Your task to perform on an android device: Search for "energizer triple a" on bestbuy.com, select the first entry, add it to the cart, then select checkout. Image 0: 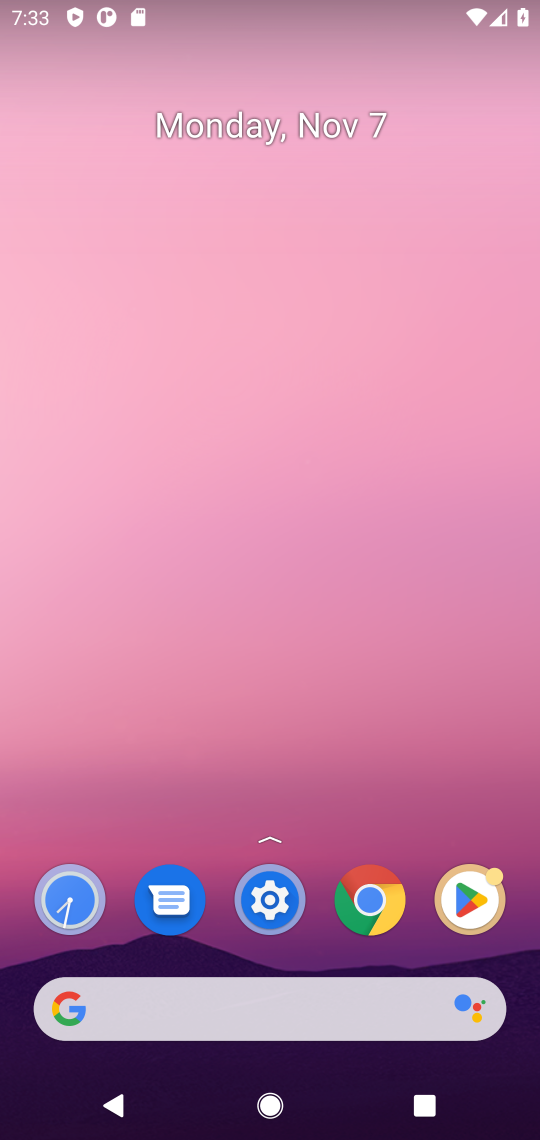
Step 0: click (160, 999)
Your task to perform on an android device: Search for "energizer triple a" on bestbuy.com, select the first entry, add it to the cart, then select checkout. Image 1: 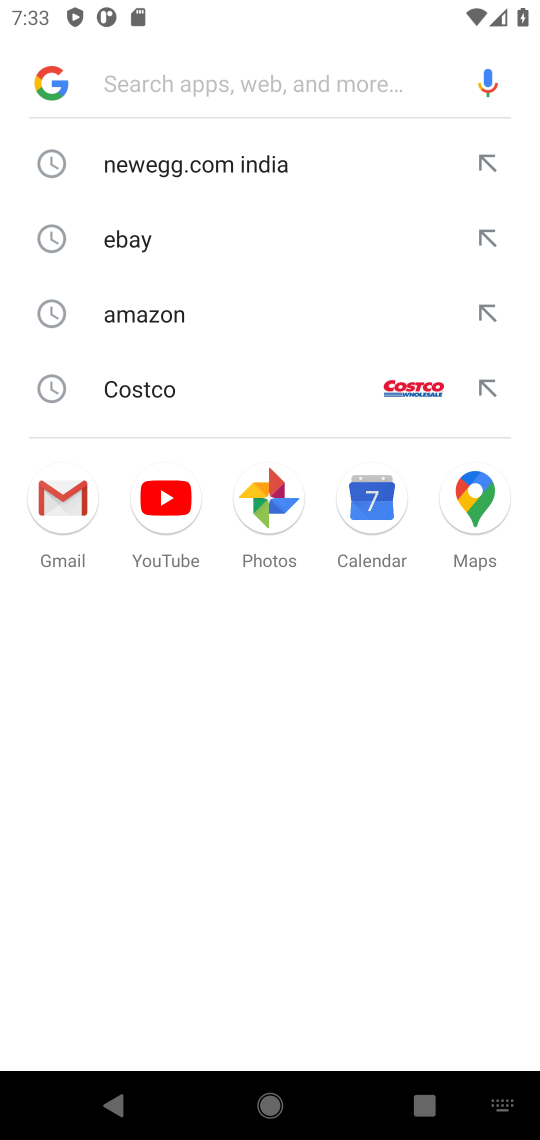
Step 1: type "bestbuy"
Your task to perform on an android device: Search for "energizer triple a" on bestbuy.com, select the first entry, add it to the cart, then select checkout. Image 2: 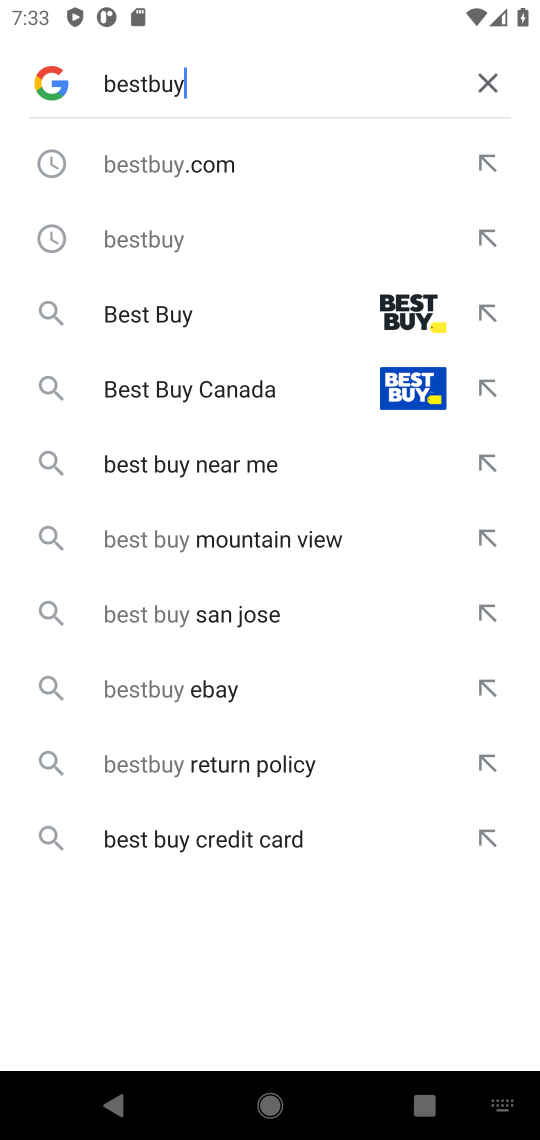
Step 2: click (205, 301)
Your task to perform on an android device: Search for "energizer triple a" on bestbuy.com, select the first entry, add it to the cart, then select checkout. Image 3: 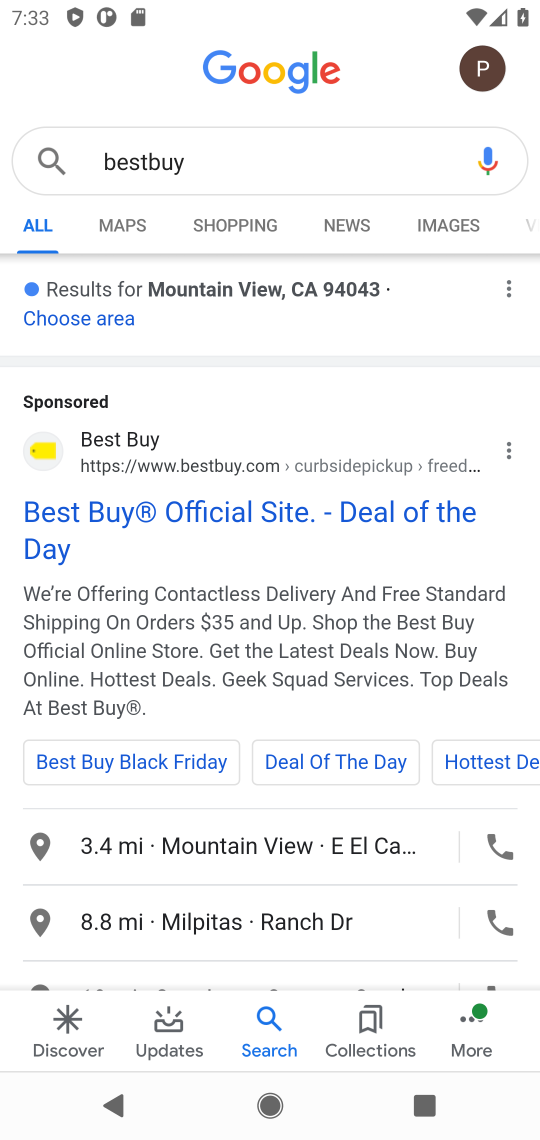
Step 3: click (155, 491)
Your task to perform on an android device: Search for "energizer triple a" on bestbuy.com, select the first entry, add it to the cart, then select checkout. Image 4: 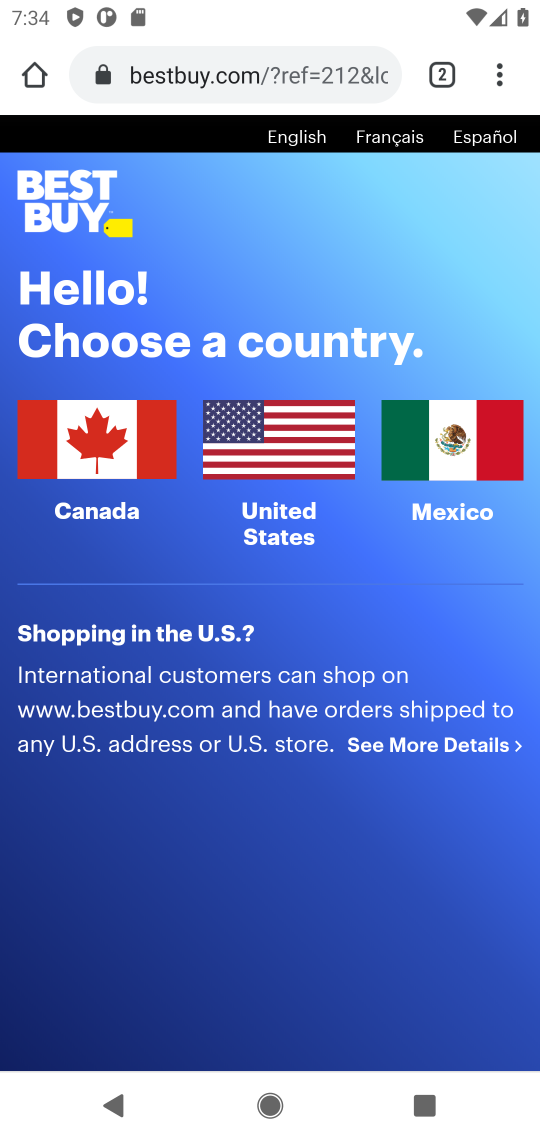
Step 4: click (146, 454)
Your task to perform on an android device: Search for "energizer triple a" on bestbuy.com, select the first entry, add it to the cart, then select checkout. Image 5: 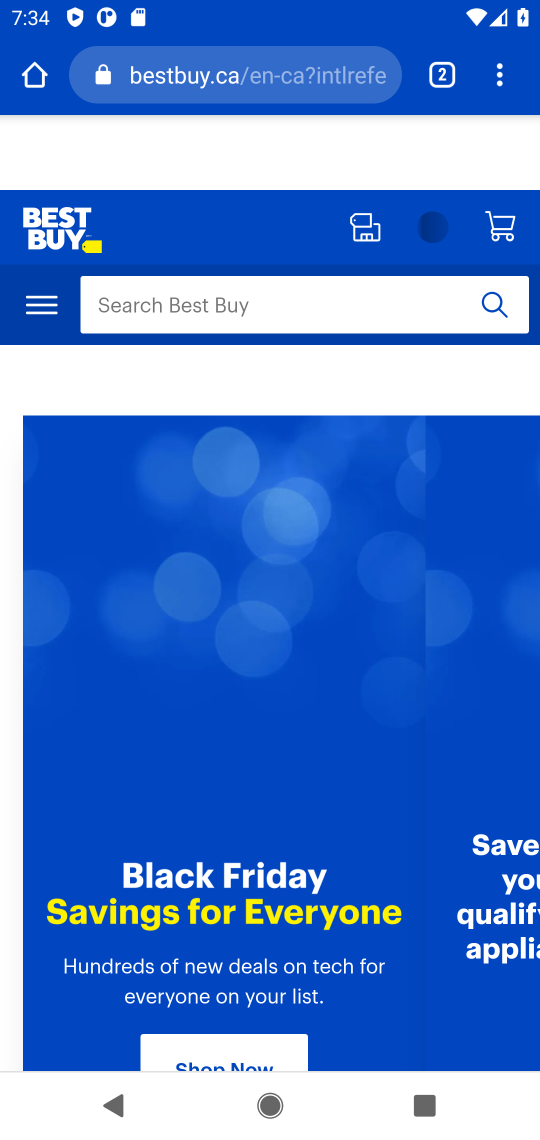
Step 5: click (207, 322)
Your task to perform on an android device: Search for "energizer triple a" on bestbuy.com, select the first entry, add it to the cart, then select checkout. Image 6: 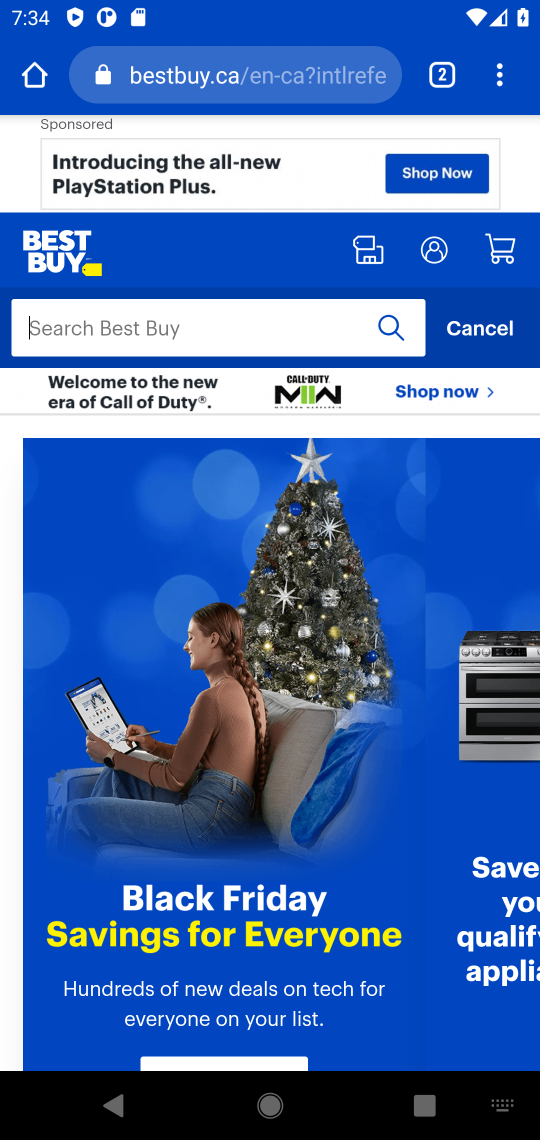
Step 6: type "energier"
Your task to perform on an android device: Search for "energizer triple a" on bestbuy.com, select the first entry, add it to the cart, then select checkout. Image 7: 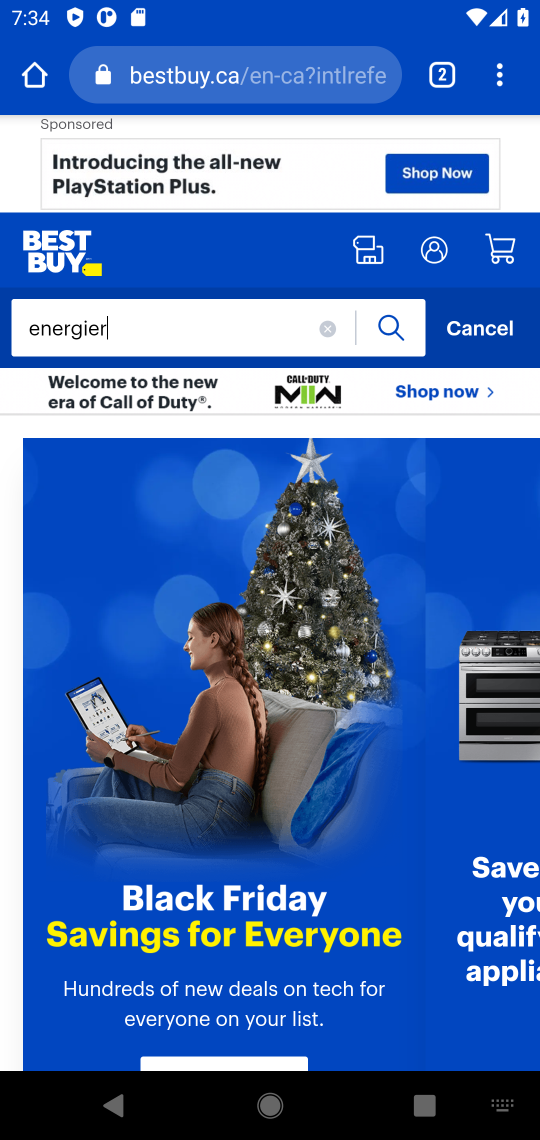
Step 7: task complete